Your task to perform on an android device: Go to network settings Image 0: 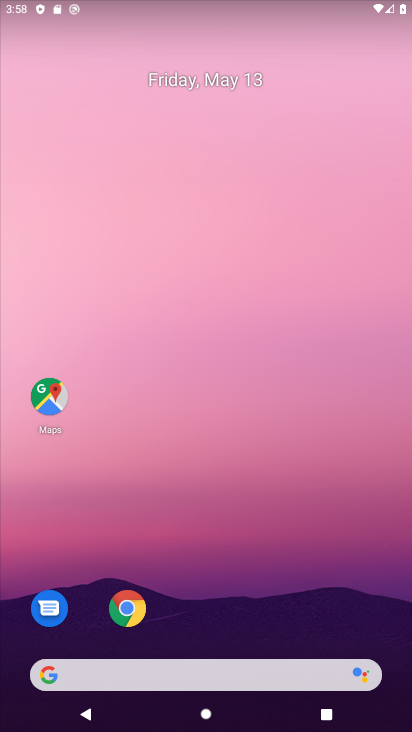
Step 0: drag from (196, 620) to (350, 3)
Your task to perform on an android device: Go to network settings Image 1: 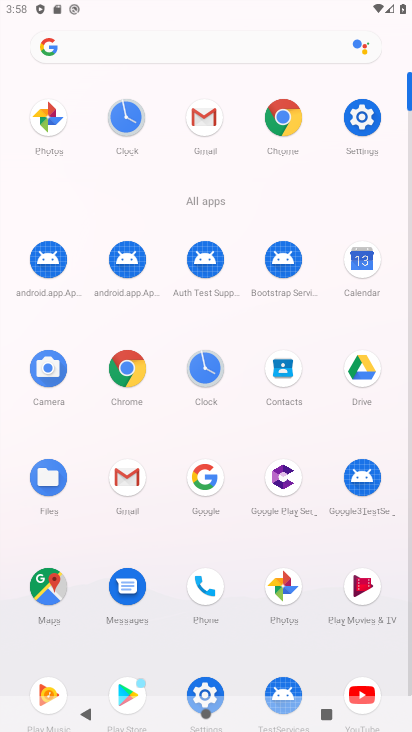
Step 1: click (362, 126)
Your task to perform on an android device: Go to network settings Image 2: 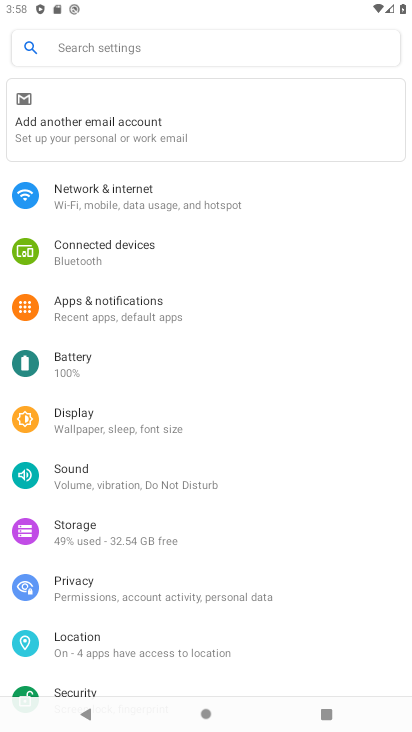
Step 2: click (158, 197)
Your task to perform on an android device: Go to network settings Image 3: 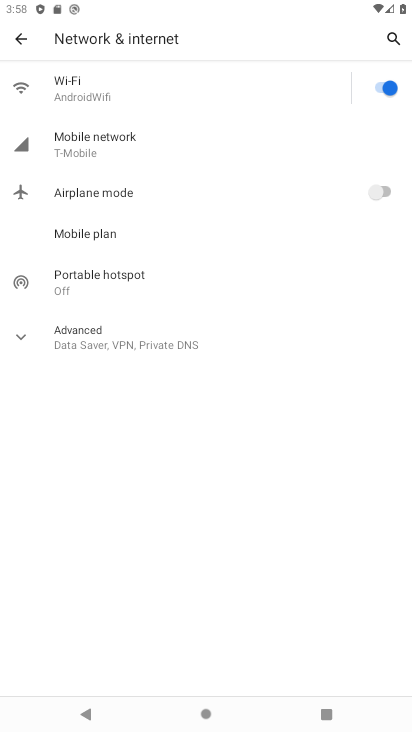
Step 3: click (146, 136)
Your task to perform on an android device: Go to network settings Image 4: 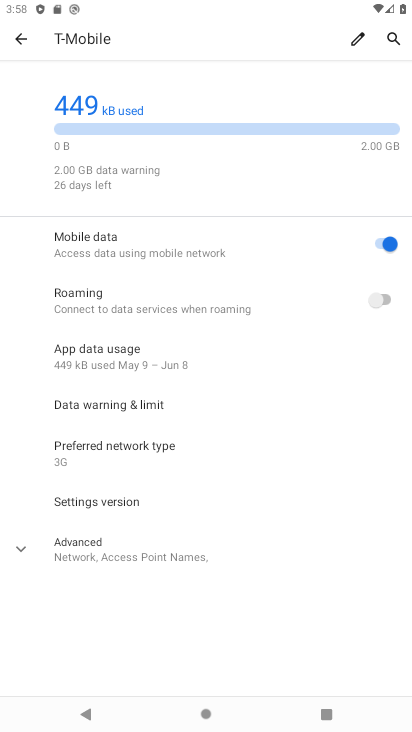
Step 4: task complete